Your task to perform on an android device: Go to Maps Image 0: 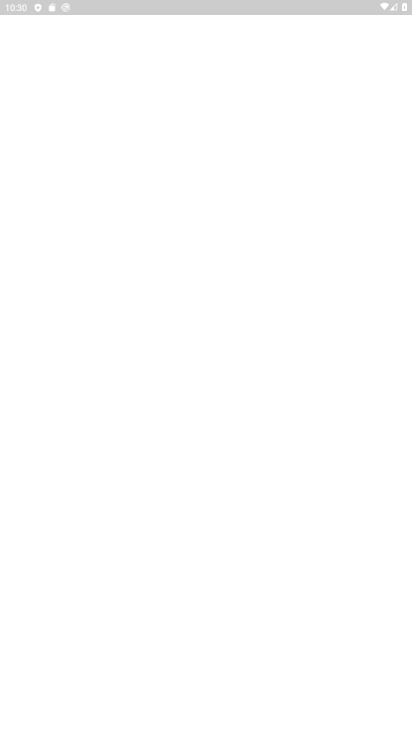
Step 0: drag from (247, 585) to (201, 3)
Your task to perform on an android device: Go to Maps Image 1: 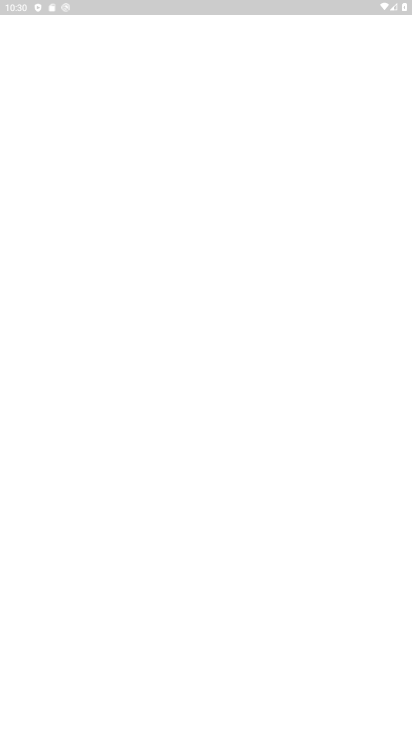
Step 1: press home button
Your task to perform on an android device: Go to Maps Image 2: 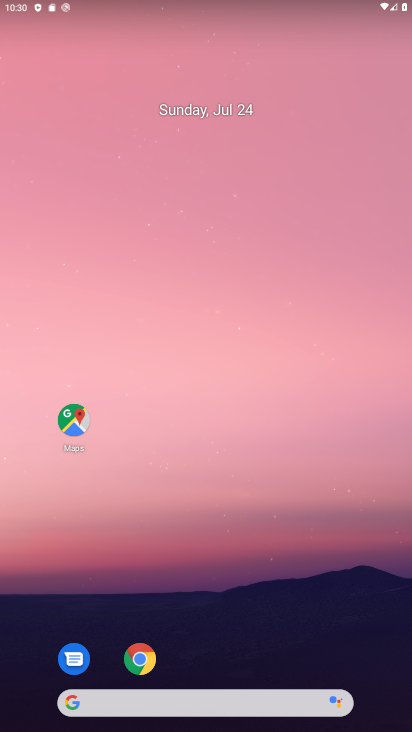
Step 2: drag from (252, 581) to (190, 11)
Your task to perform on an android device: Go to Maps Image 3: 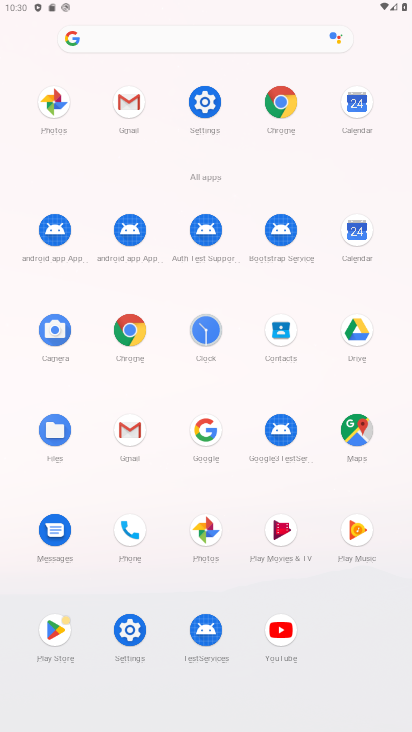
Step 3: click (354, 434)
Your task to perform on an android device: Go to Maps Image 4: 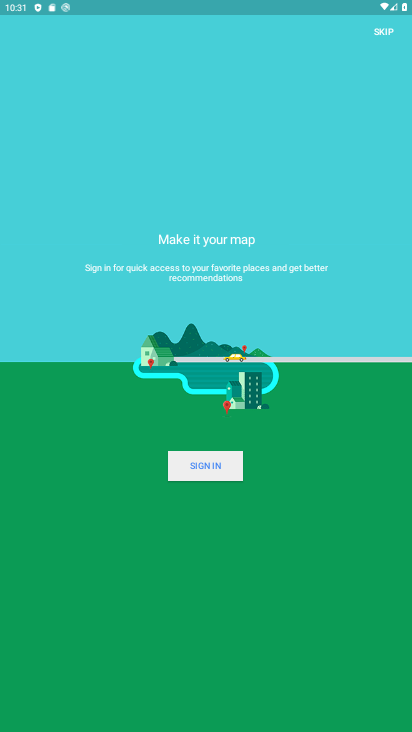
Step 4: task complete